Your task to perform on an android device: Turn off the flashlight Image 0: 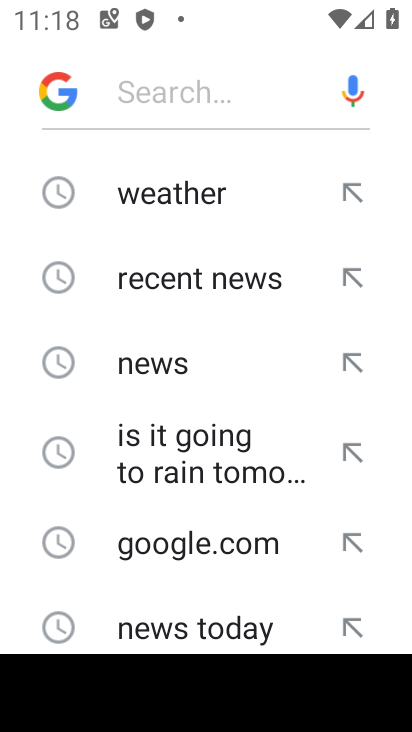
Step 0: type "flashlight"
Your task to perform on an android device: Turn off the flashlight Image 1: 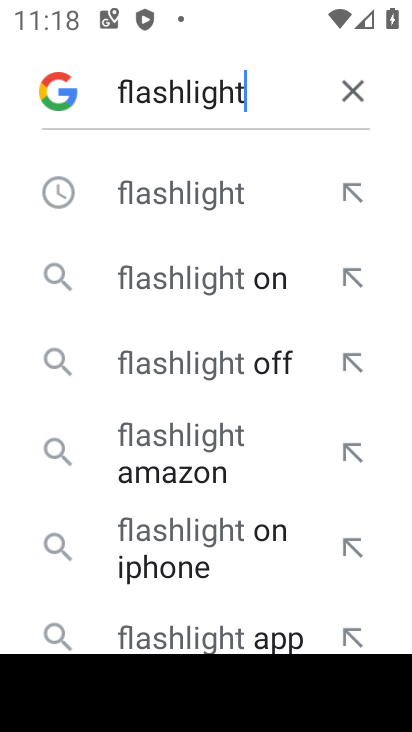
Step 1: click (262, 362)
Your task to perform on an android device: Turn off the flashlight Image 2: 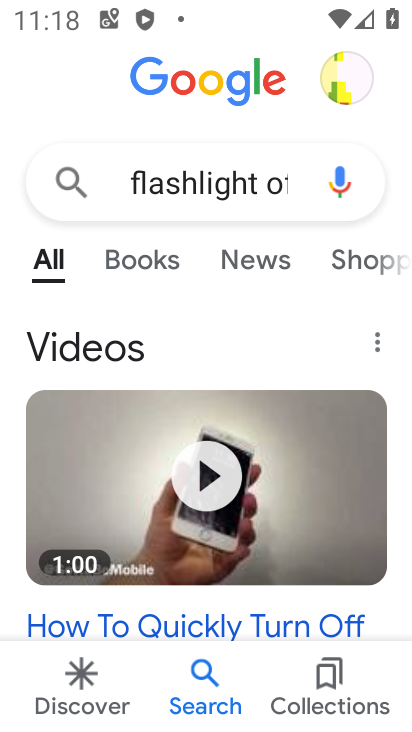
Step 2: task complete